Your task to perform on an android device: delete browsing data in the chrome app Image 0: 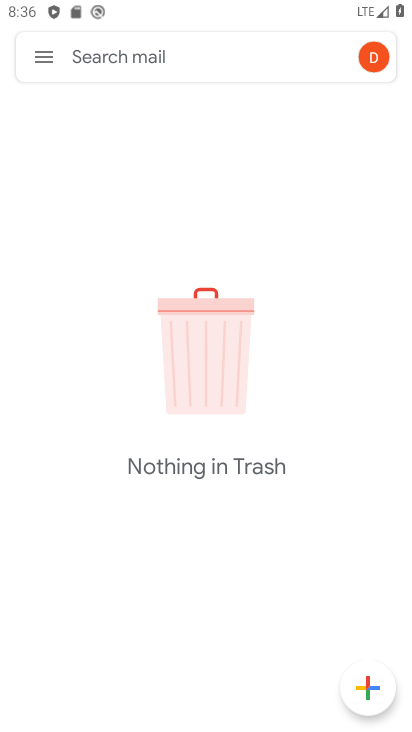
Step 0: press back button
Your task to perform on an android device: delete browsing data in the chrome app Image 1: 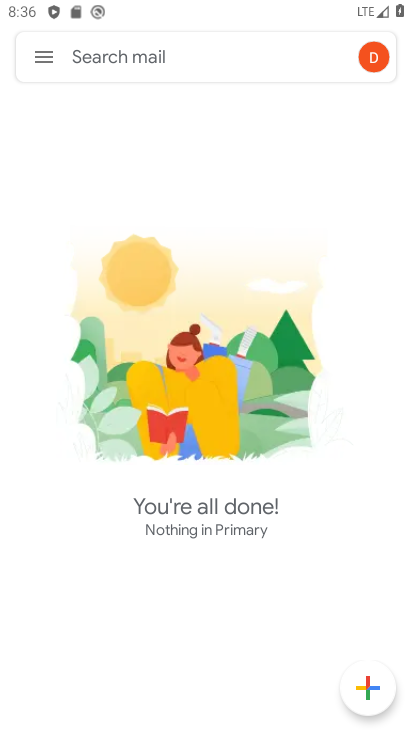
Step 1: press back button
Your task to perform on an android device: delete browsing data in the chrome app Image 2: 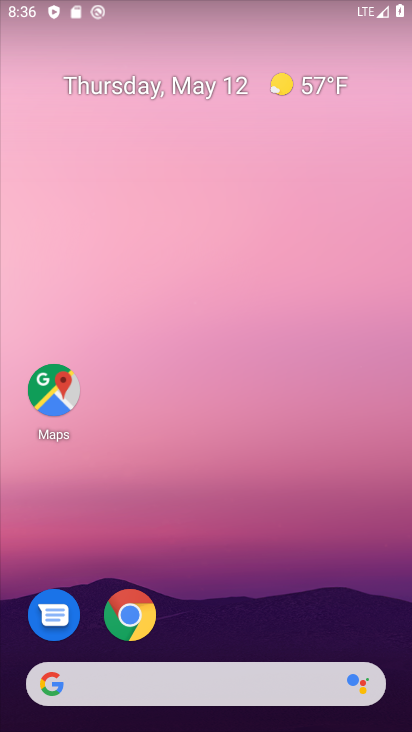
Step 2: drag from (261, 528) to (251, 44)
Your task to perform on an android device: delete browsing data in the chrome app Image 3: 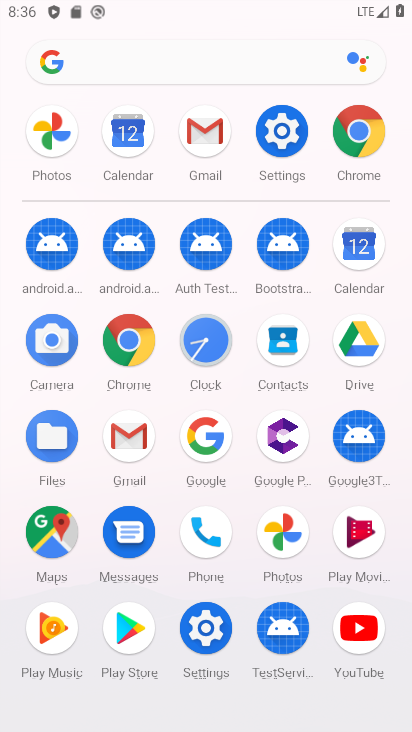
Step 3: click (132, 338)
Your task to perform on an android device: delete browsing data in the chrome app Image 4: 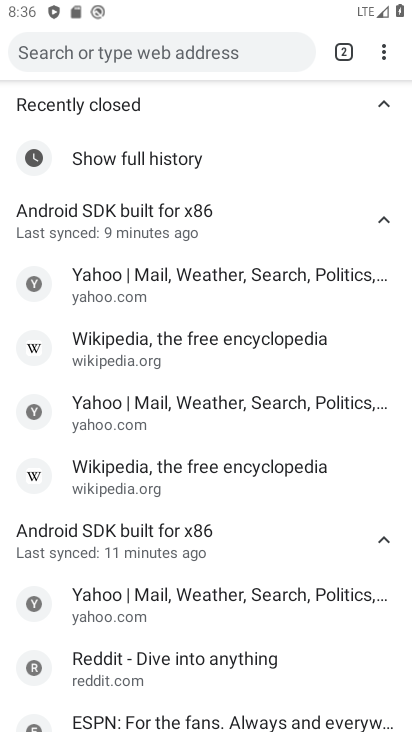
Step 4: drag from (385, 50) to (192, 435)
Your task to perform on an android device: delete browsing data in the chrome app Image 5: 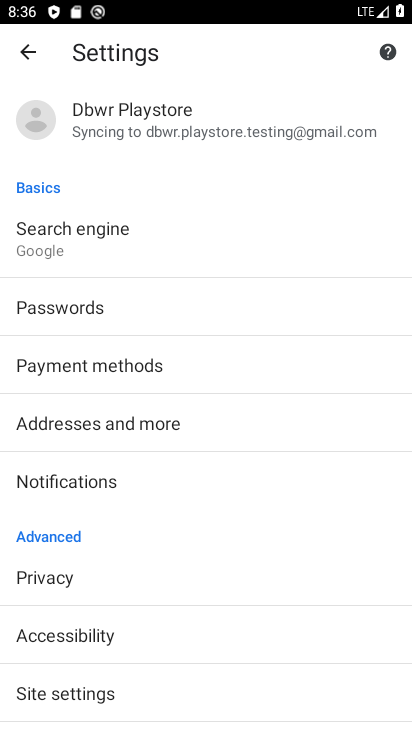
Step 5: drag from (292, 532) to (275, 184)
Your task to perform on an android device: delete browsing data in the chrome app Image 6: 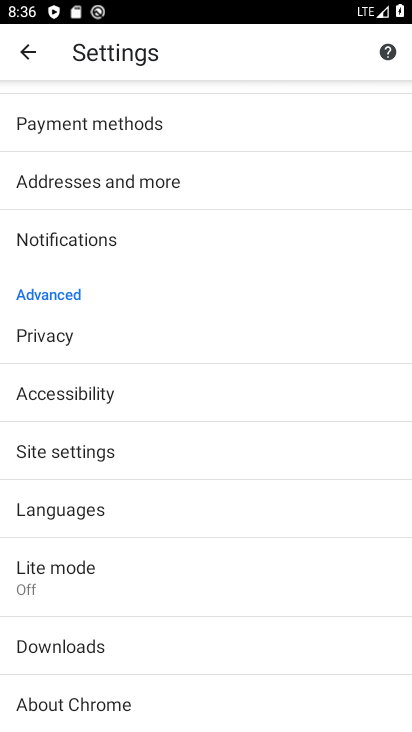
Step 6: drag from (236, 574) to (237, 242)
Your task to perform on an android device: delete browsing data in the chrome app Image 7: 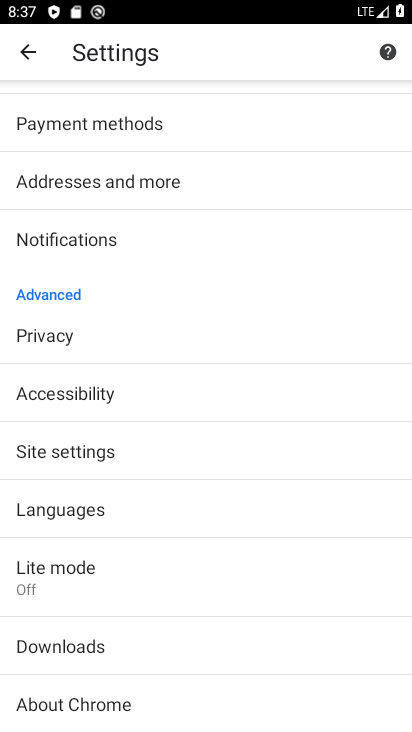
Step 7: drag from (208, 547) to (209, 193)
Your task to perform on an android device: delete browsing data in the chrome app Image 8: 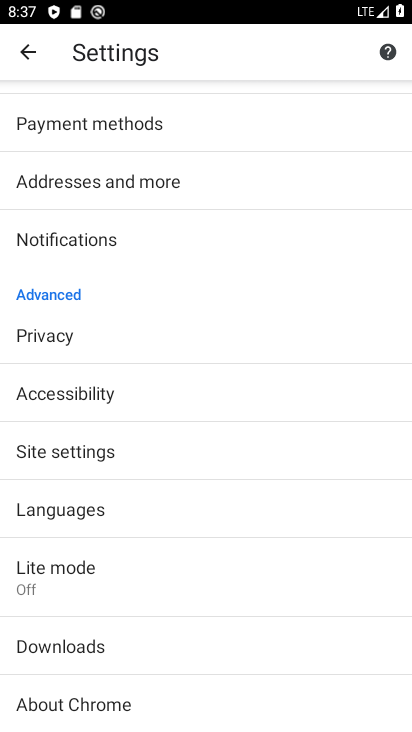
Step 8: drag from (210, 273) to (215, 521)
Your task to perform on an android device: delete browsing data in the chrome app Image 9: 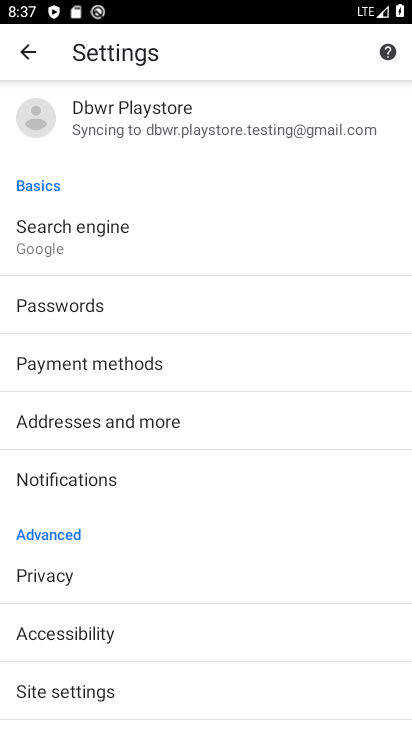
Step 9: click (36, 54)
Your task to perform on an android device: delete browsing data in the chrome app Image 10: 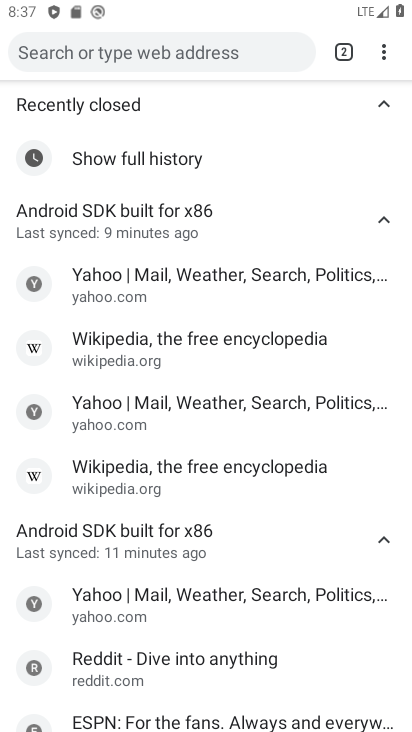
Step 10: task complete